Your task to perform on an android device: Search for the best coffee tables on Crate & Barrel Image 0: 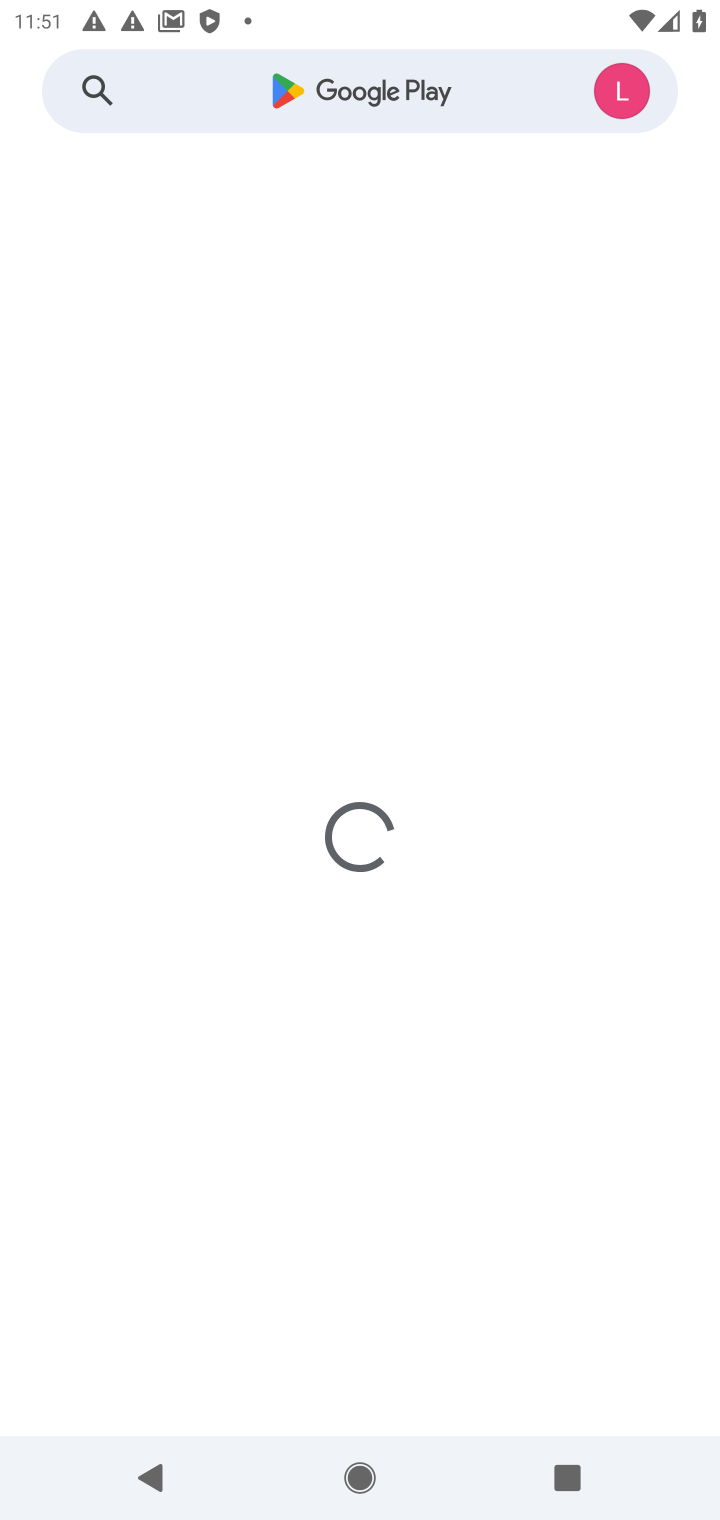
Step 0: press home button
Your task to perform on an android device: Search for the best coffee tables on Crate & Barrel Image 1: 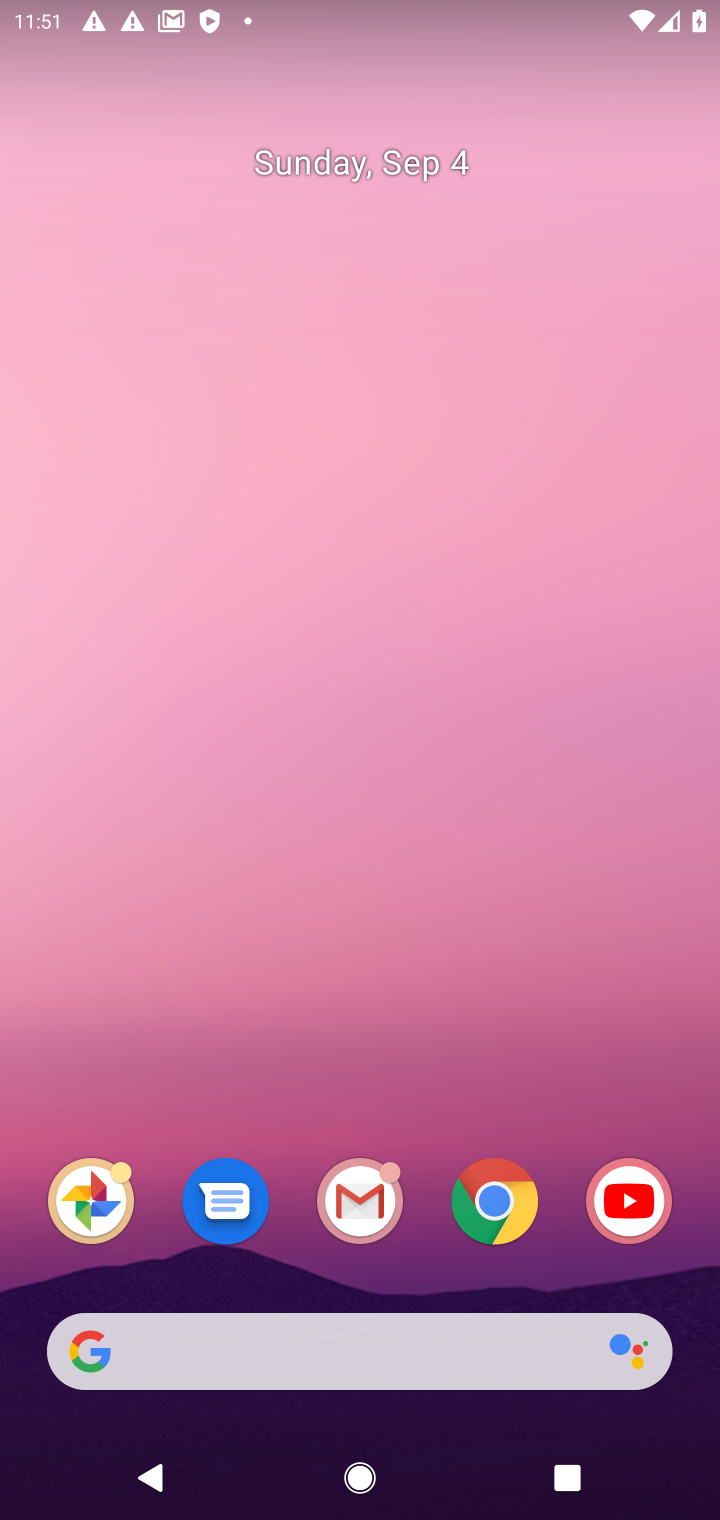
Step 1: click (477, 1197)
Your task to perform on an android device: Search for the best coffee tables on Crate & Barrel Image 2: 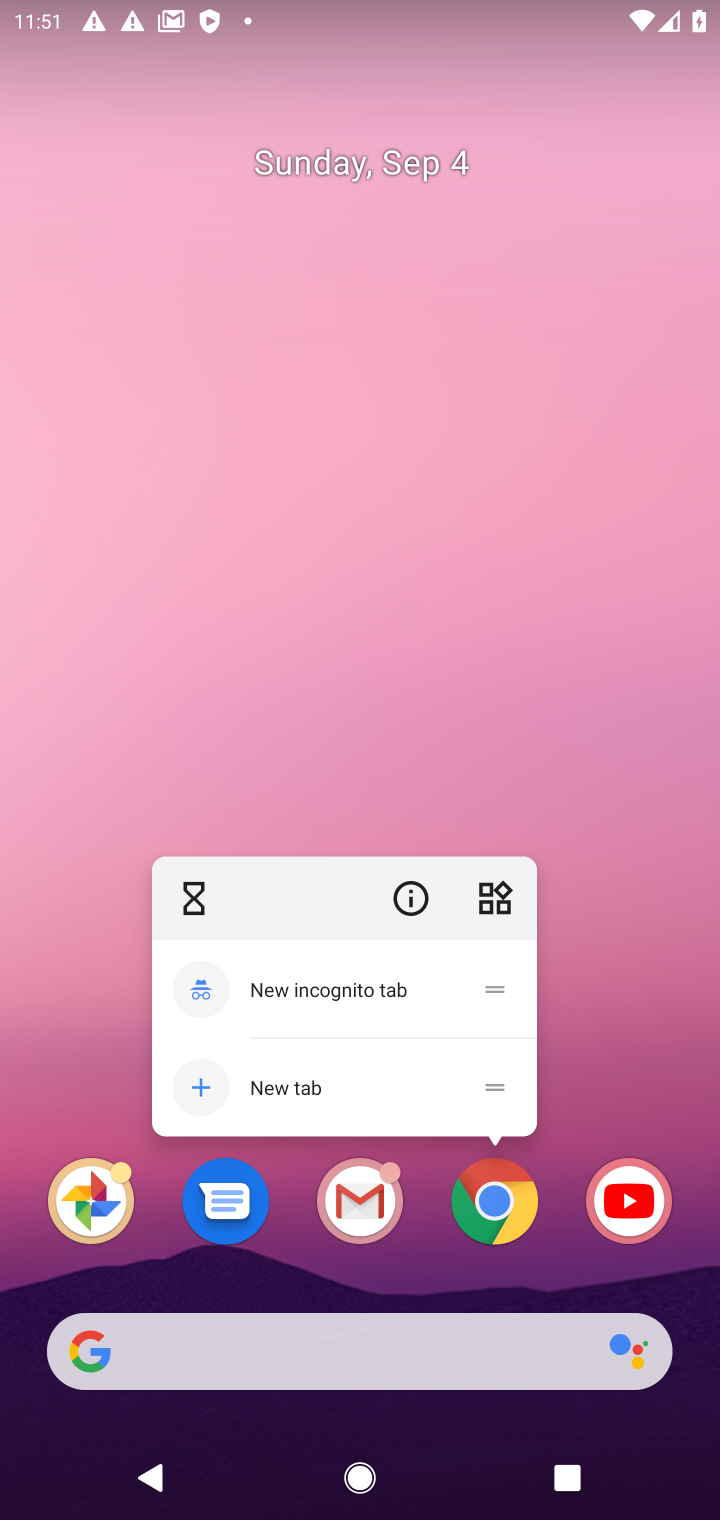
Step 2: click (508, 1181)
Your task to perform on an android device: Search for the best coffee tables on Crate & Barrel Image 3: 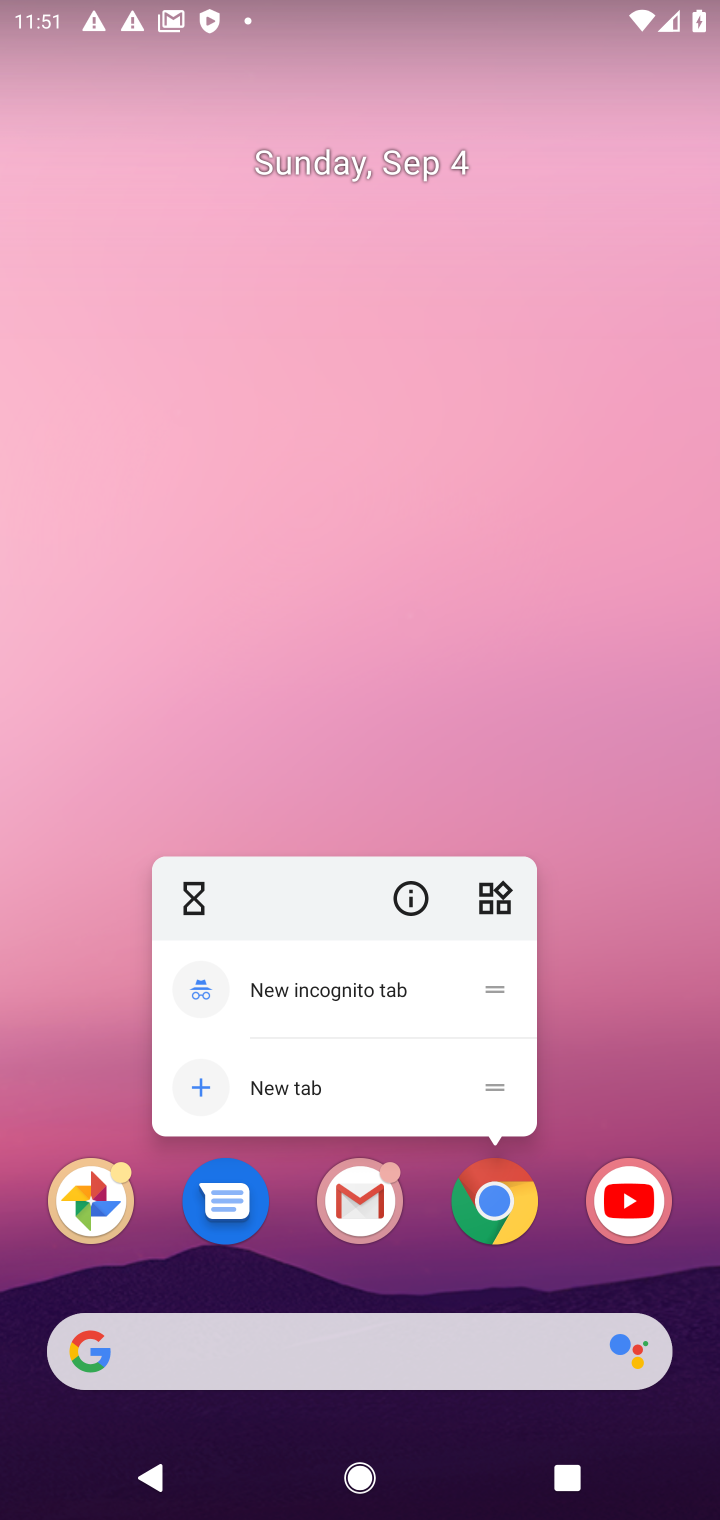
Step 3: click (505, 1175)
Your task to perform on an android device: Search for the best coffee tables on Crate & Barrel Image 4: 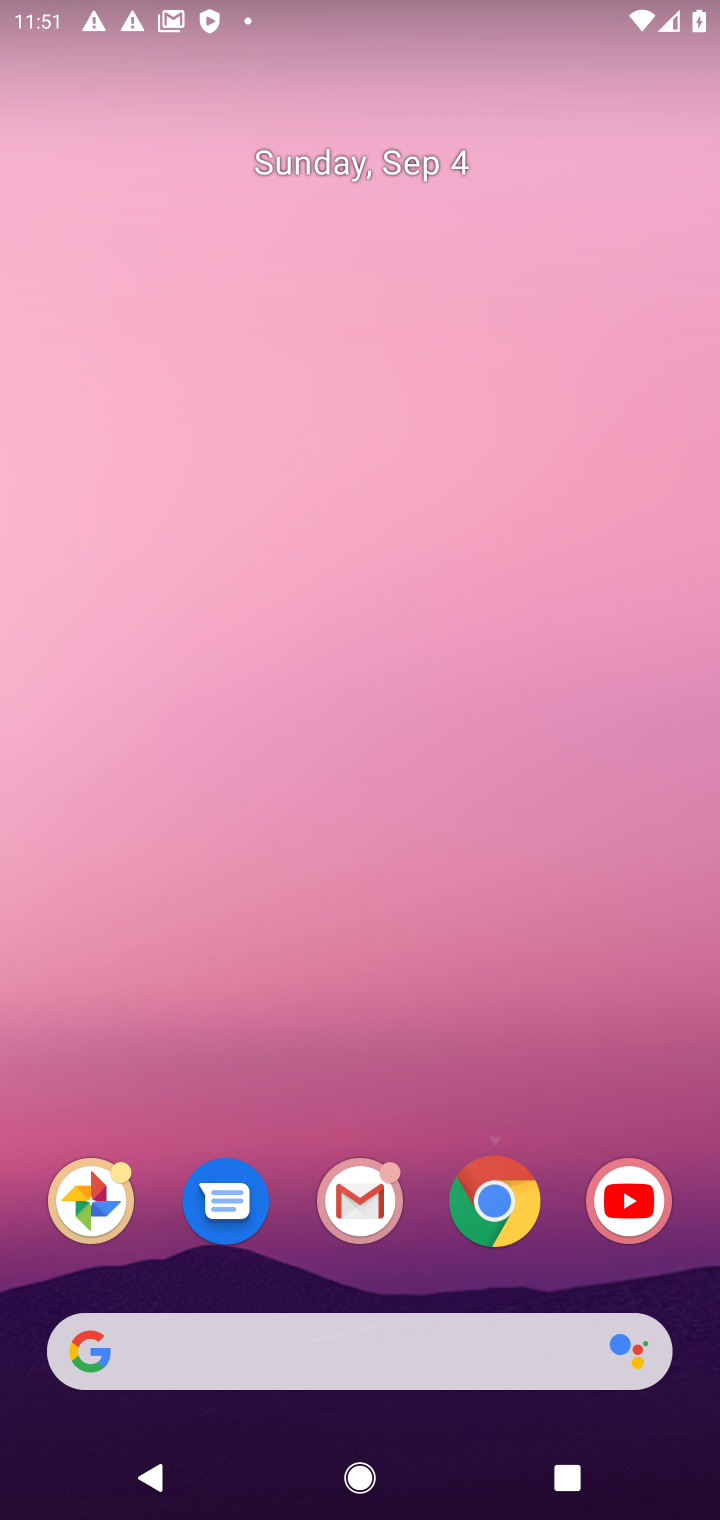
Step 4: click (512, 1212)
Your task to perform on an android device: Search for the best coffee tables on Crate & Barrel Image 5: 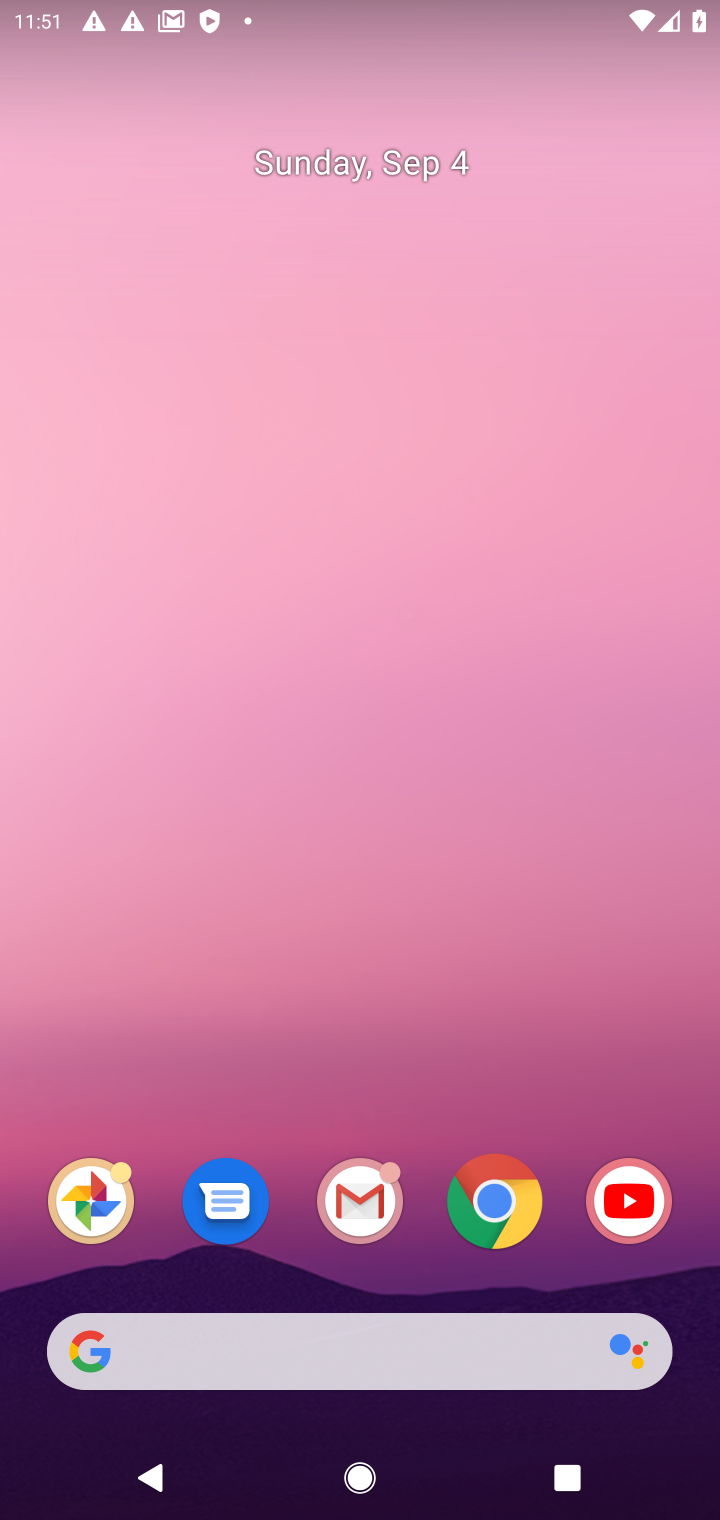
Step 5: click (516, 1210)
Your task to perform on an android device: Search for the best coffee tables on Crate & Barrel Image 6: 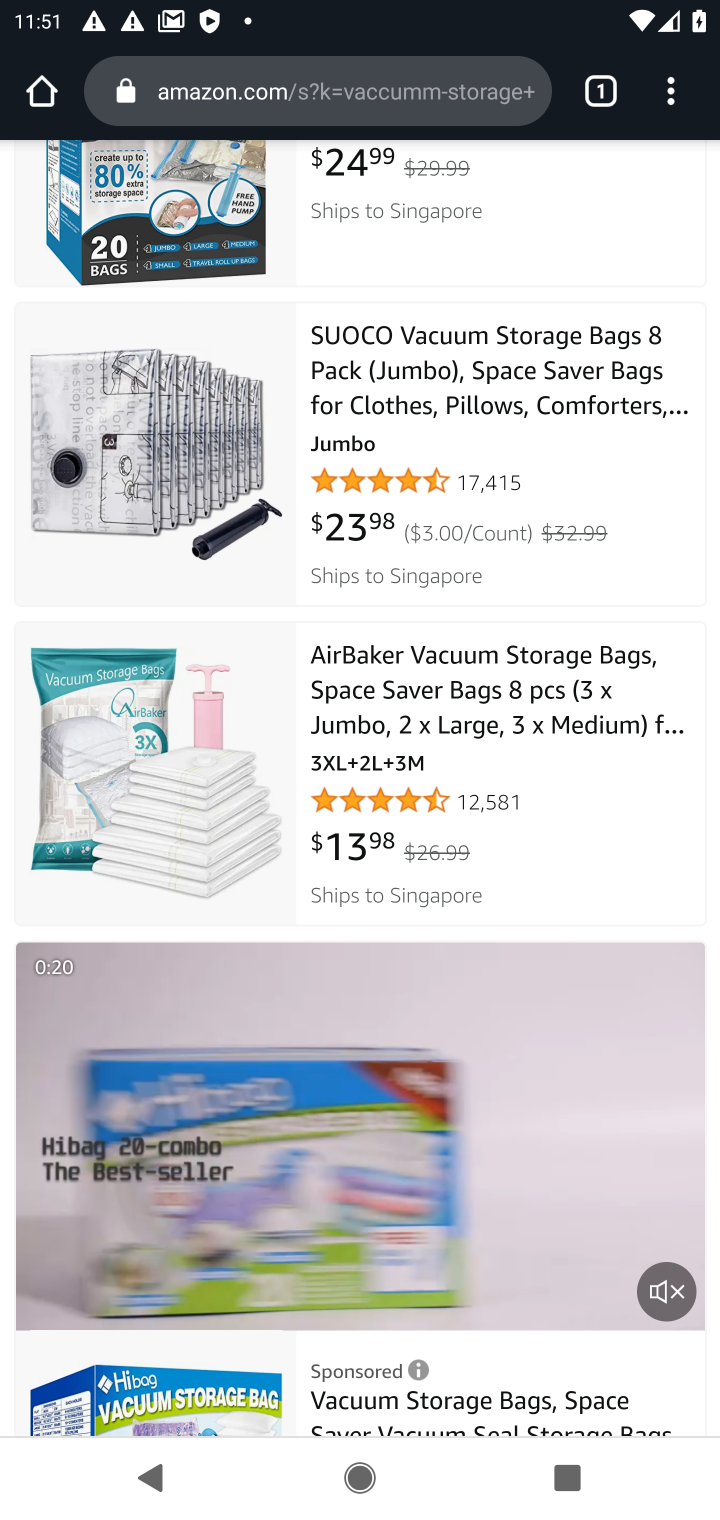
Step 6: click (332, 105)
Your task to perform on an android device: Search for the best coffee tables on Crate & Barrel Image 7: 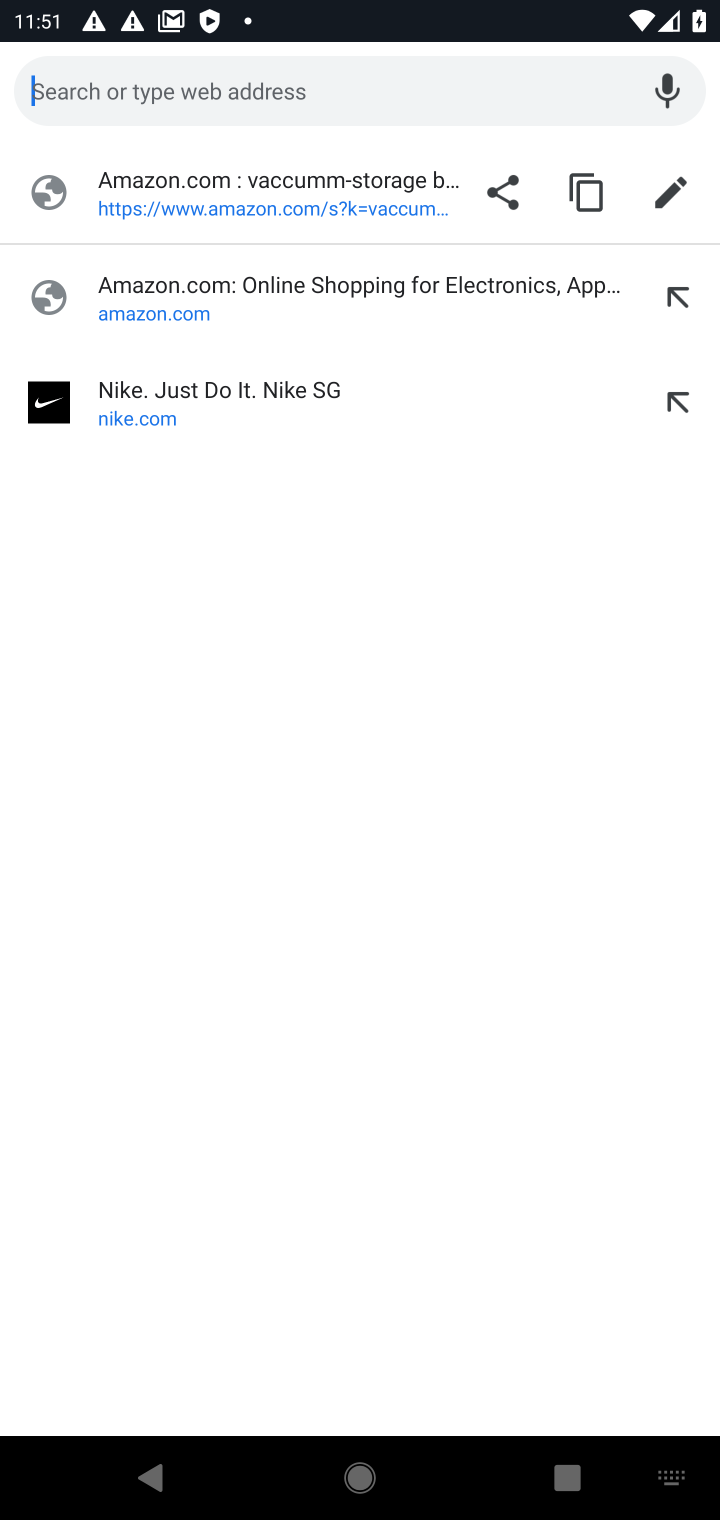
Step 7: click (364, 96)
Your task to perform on an android device: Search for the best coffee tables on Crate & Barrel Image 8: 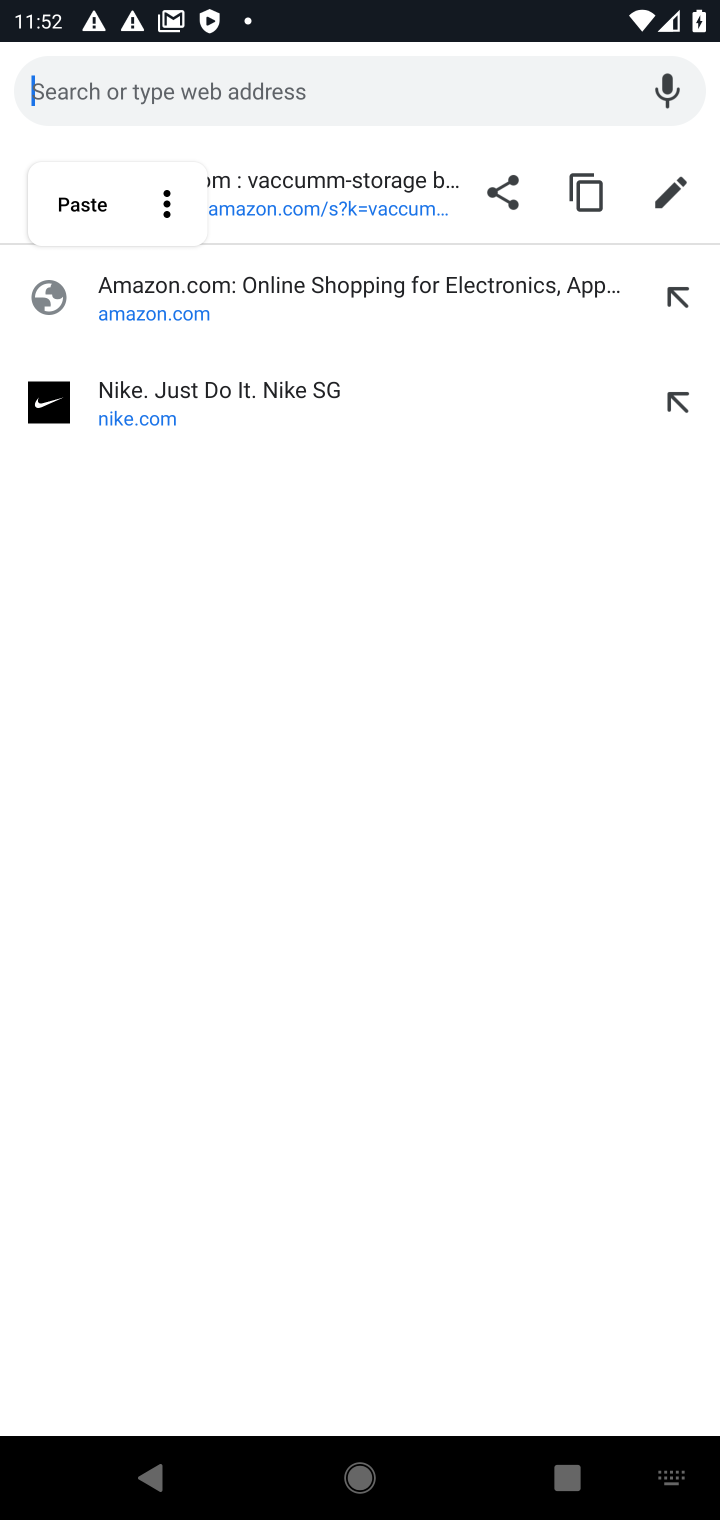
Step 8: type "crate & barrel"
Your task to perform on an android device: Search for the best coffee tables on Crate & Barrel Image 9: 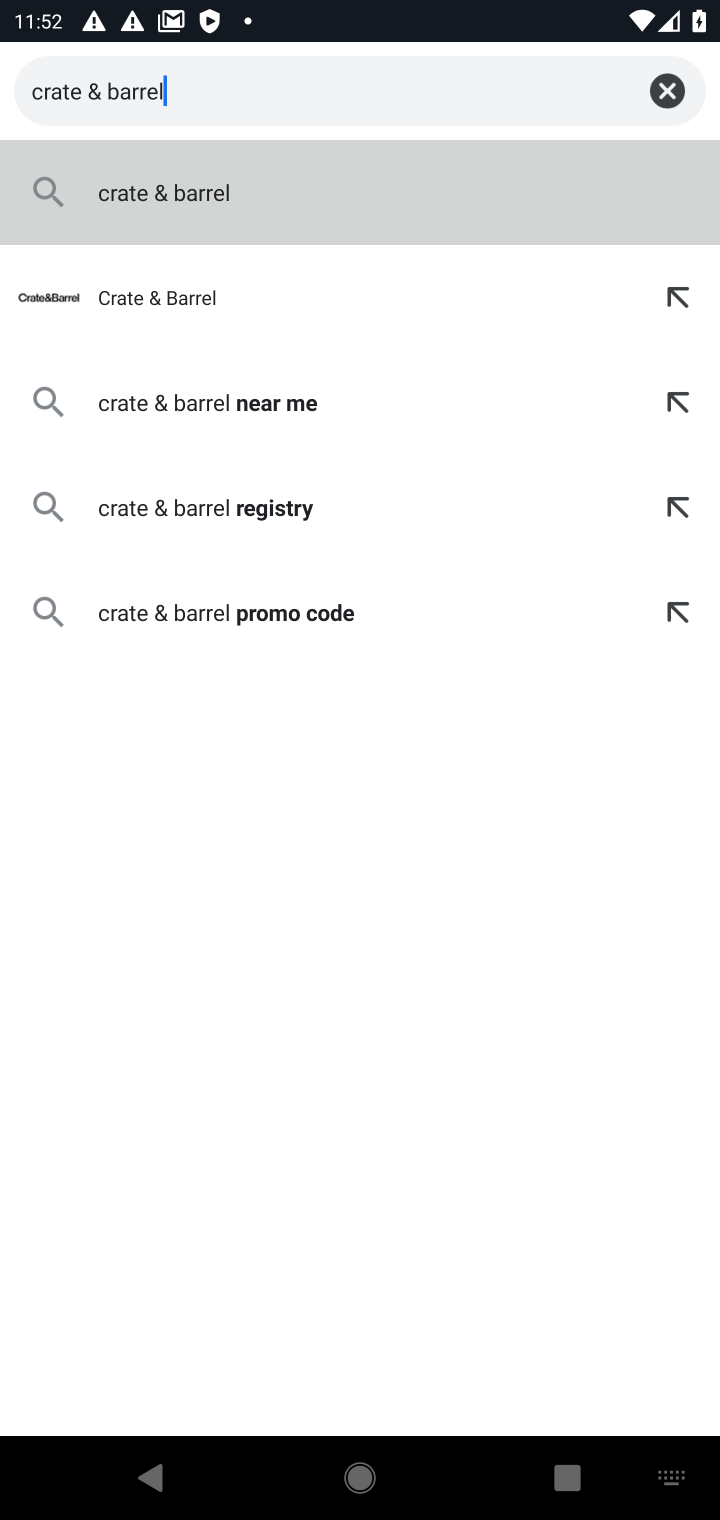
Step 9: type ""
Your task to perform on an android device: Search for the best coffee tables on Crate & Barrel Image 10: 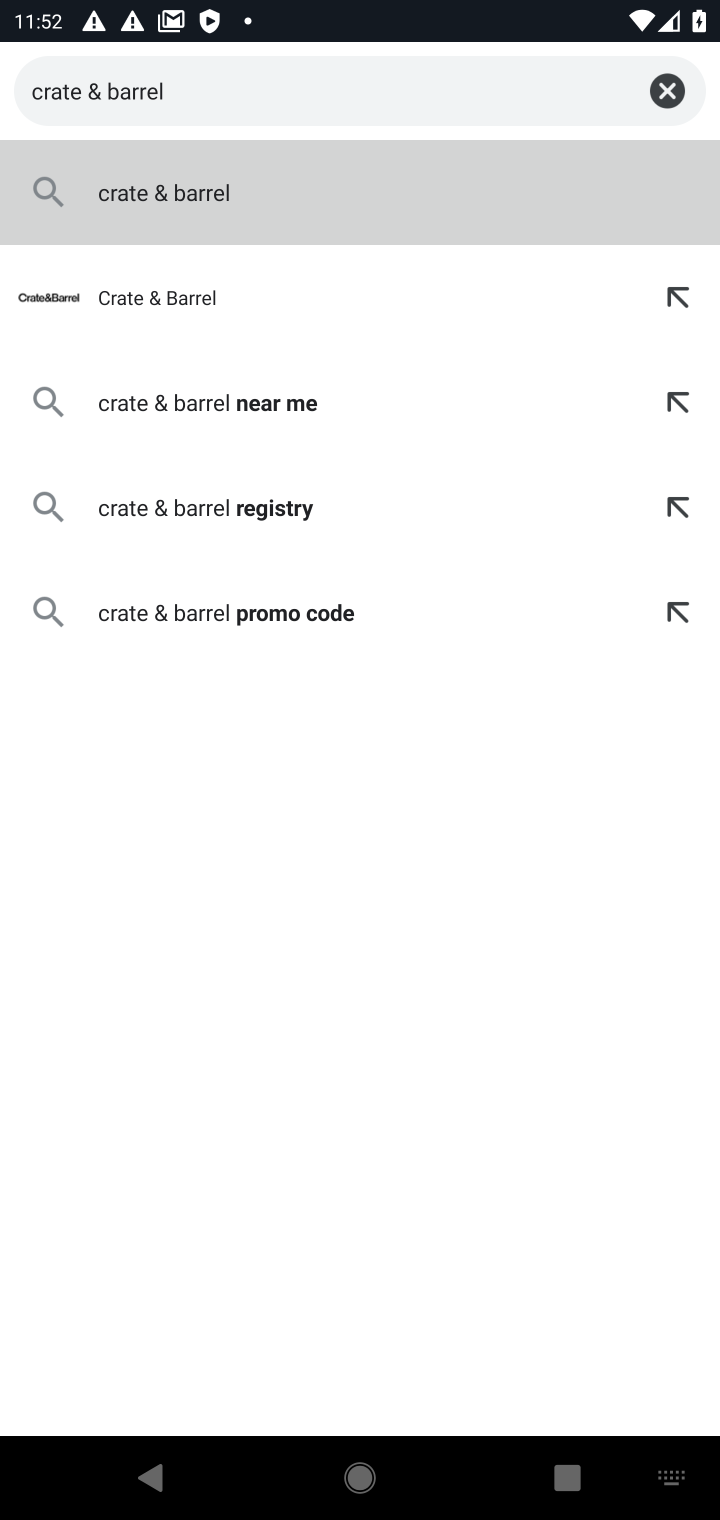
Step 10: click (138, 300)
Your task to perform on an android device: Search for the best coffee tables on Crate & Barrel Image 11: 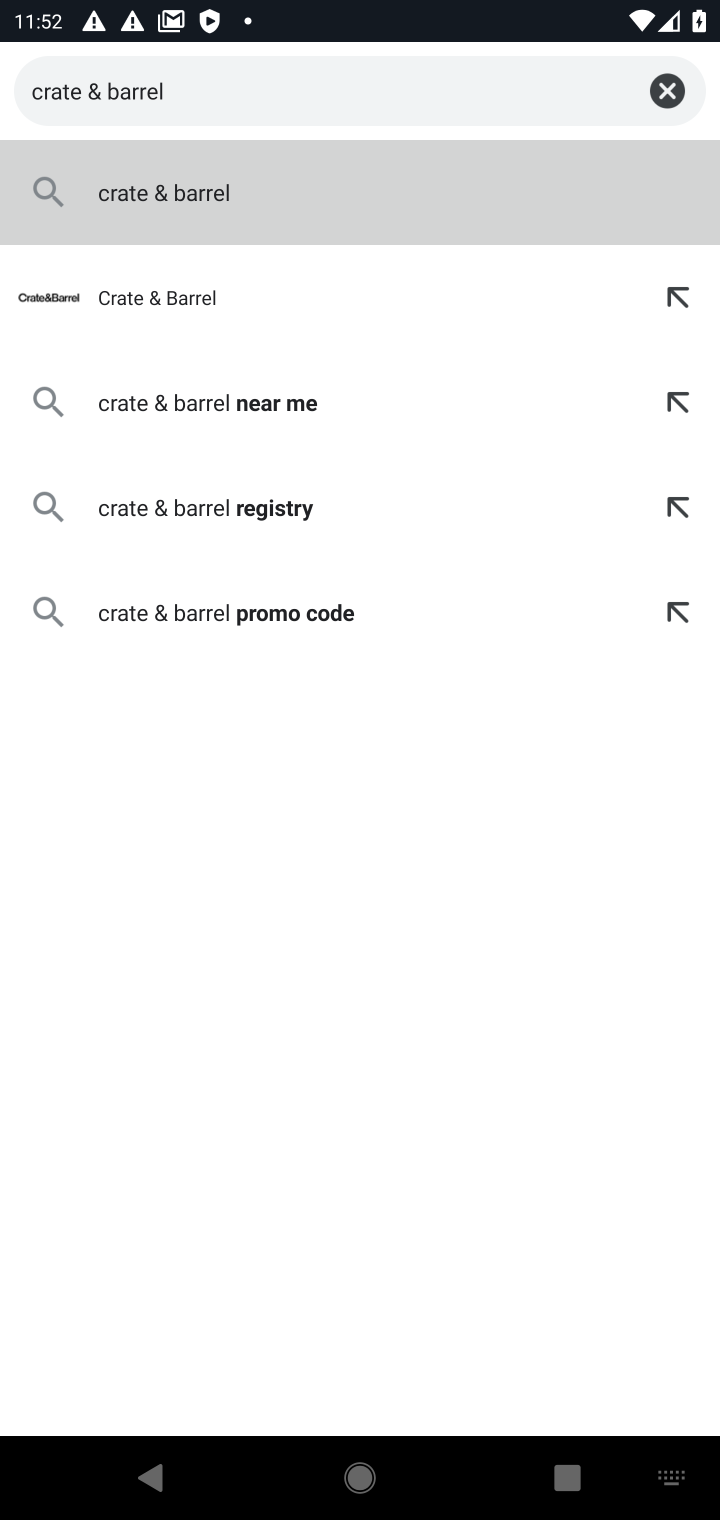
Step 11: click (192, 291)
Your task to perform on an android device: Search for the best coffee tables on Crate & Barrel Image 12: 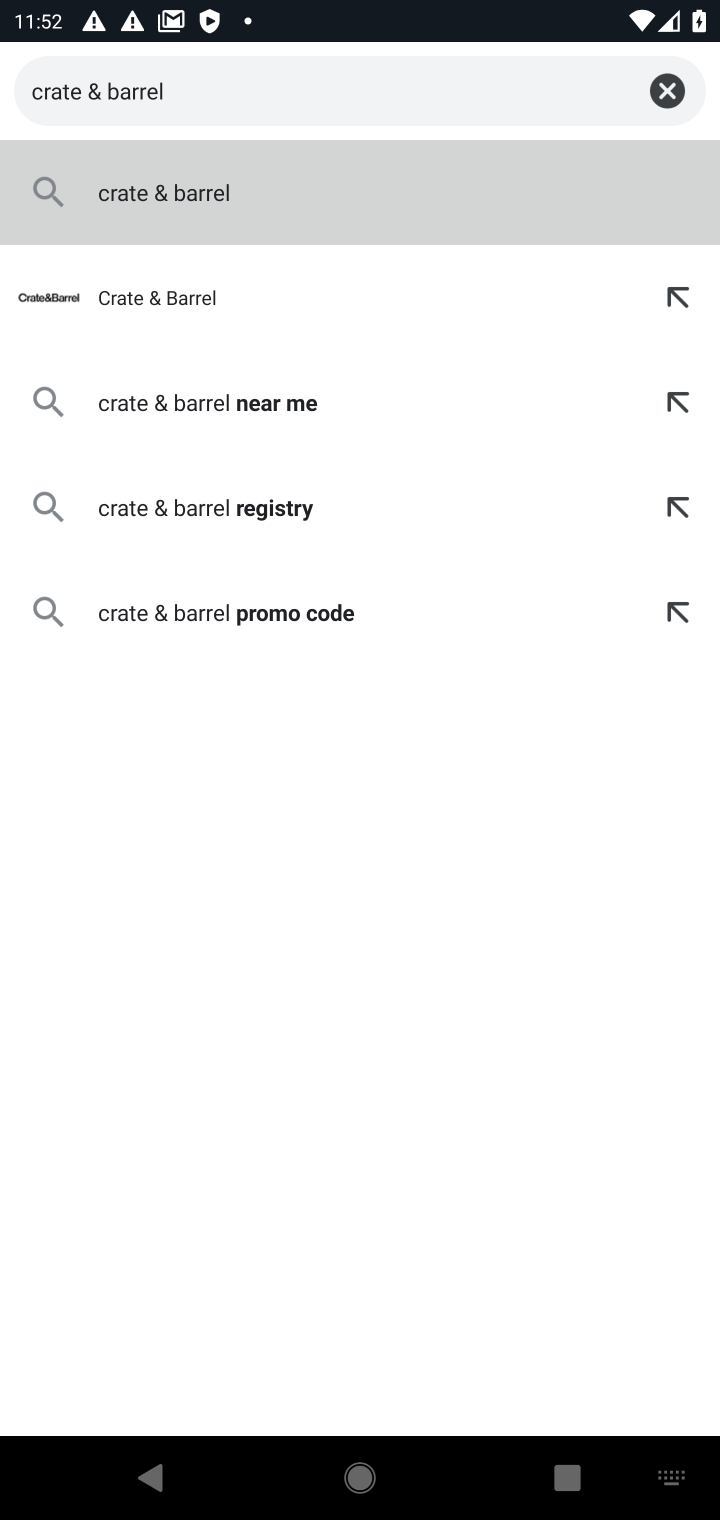
Step 12: click (167, 296)
Your task to perform on an android device: Search for the best coffee tables on Crate & Barrel Image 13: 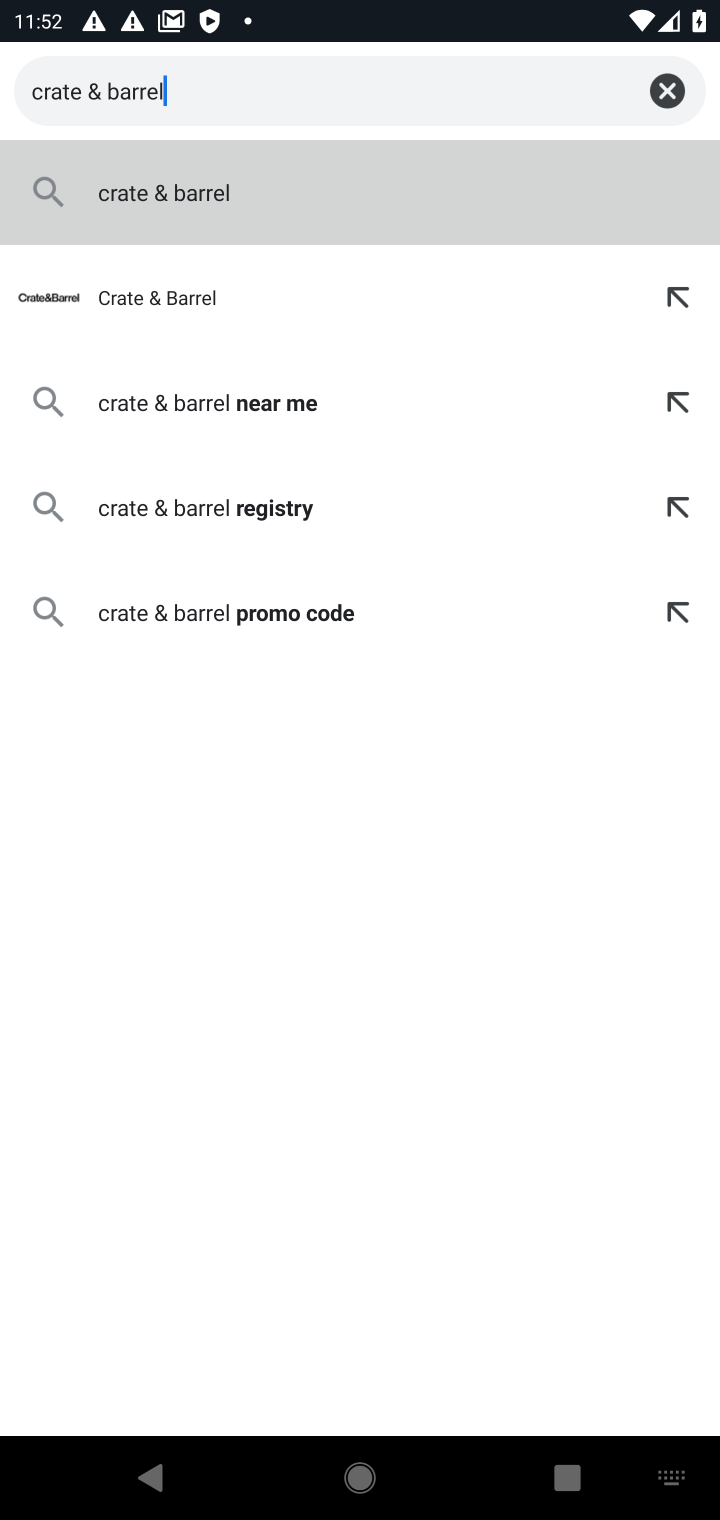
Step 13: press enter
Your task to perform on an android device: Search for the best coffee tables on Crate & Barrel Image 14: 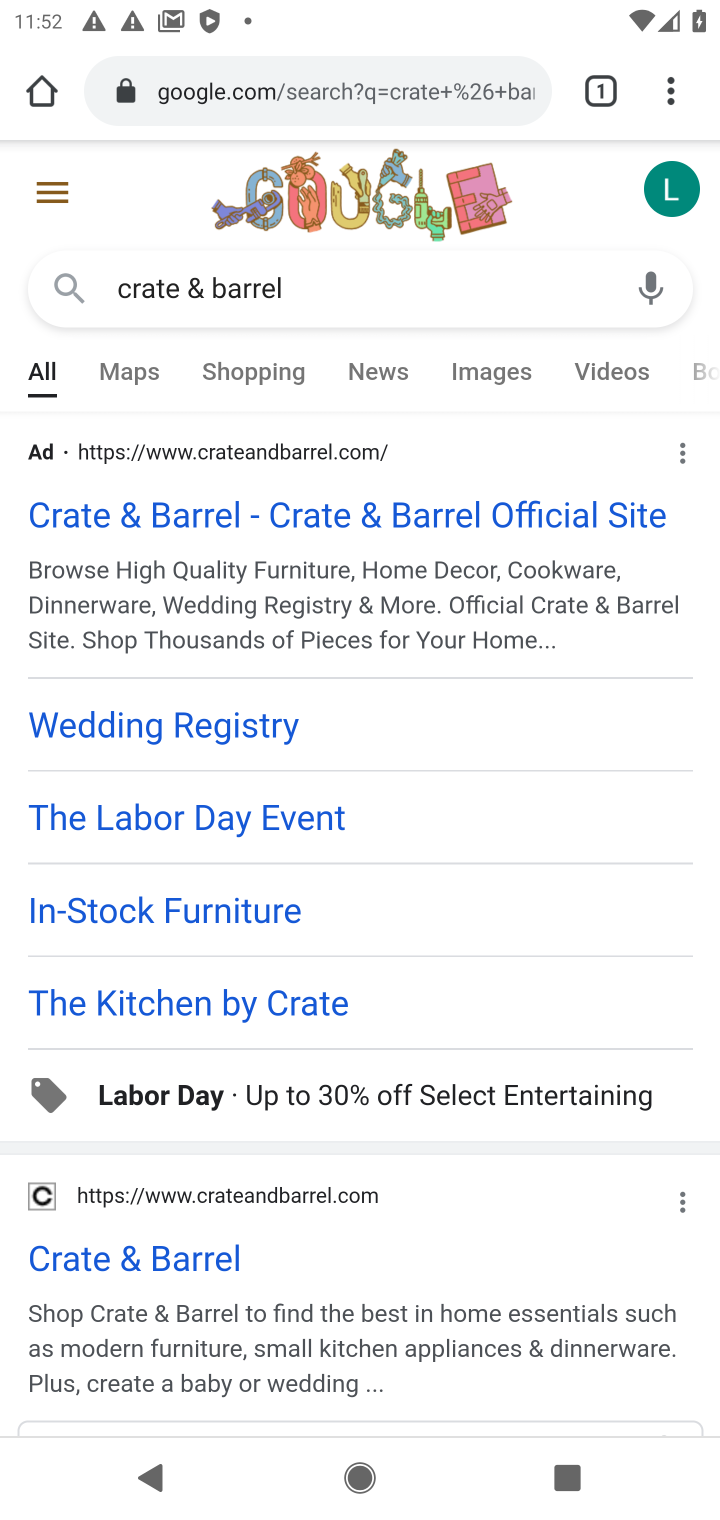
Step 14: click (65, 1261)
Your task to perform on an android device: Search for the best coffee tables on Crate & Barrel Image 15: 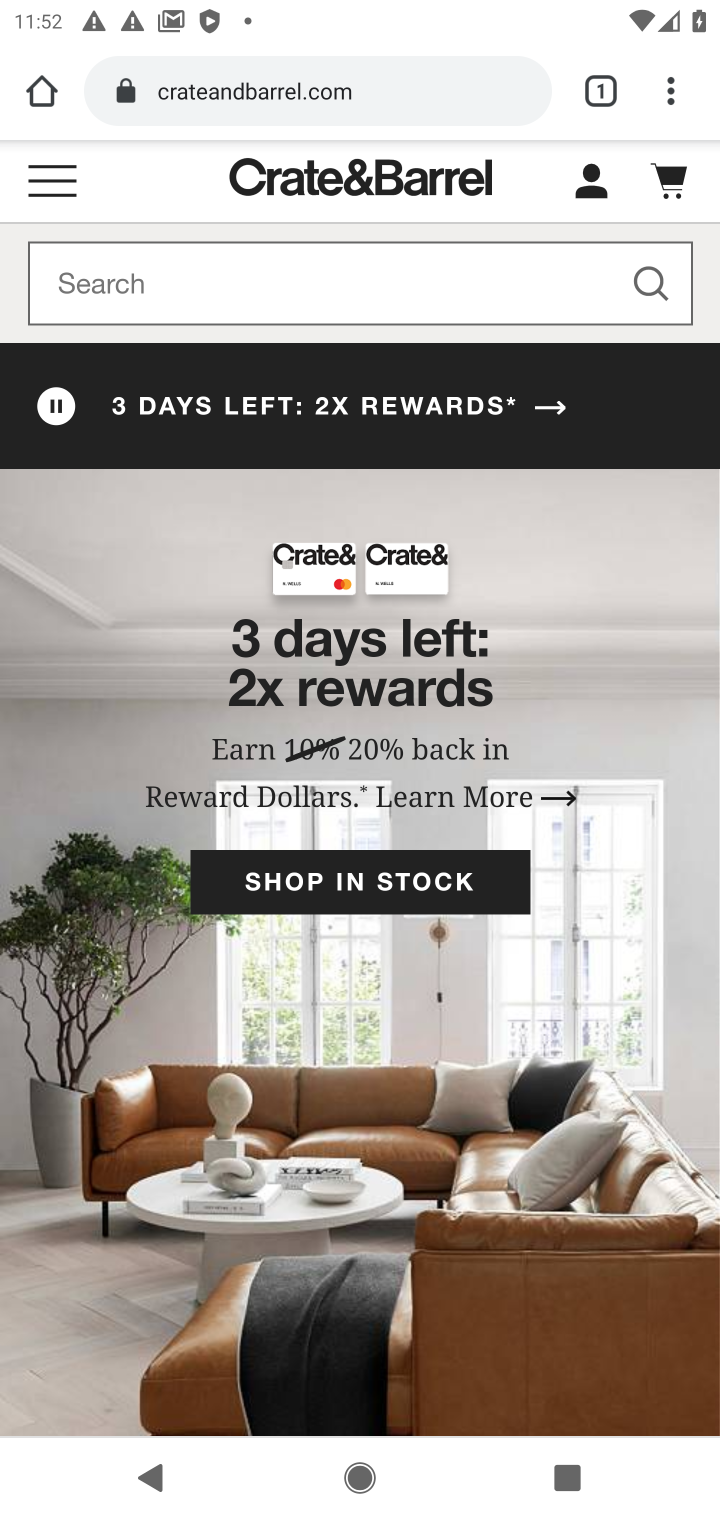
Step 15: click (143, 286)
Your task to perform on an android device: Search for the best coffee tables on Crate & Barrel Image 16: 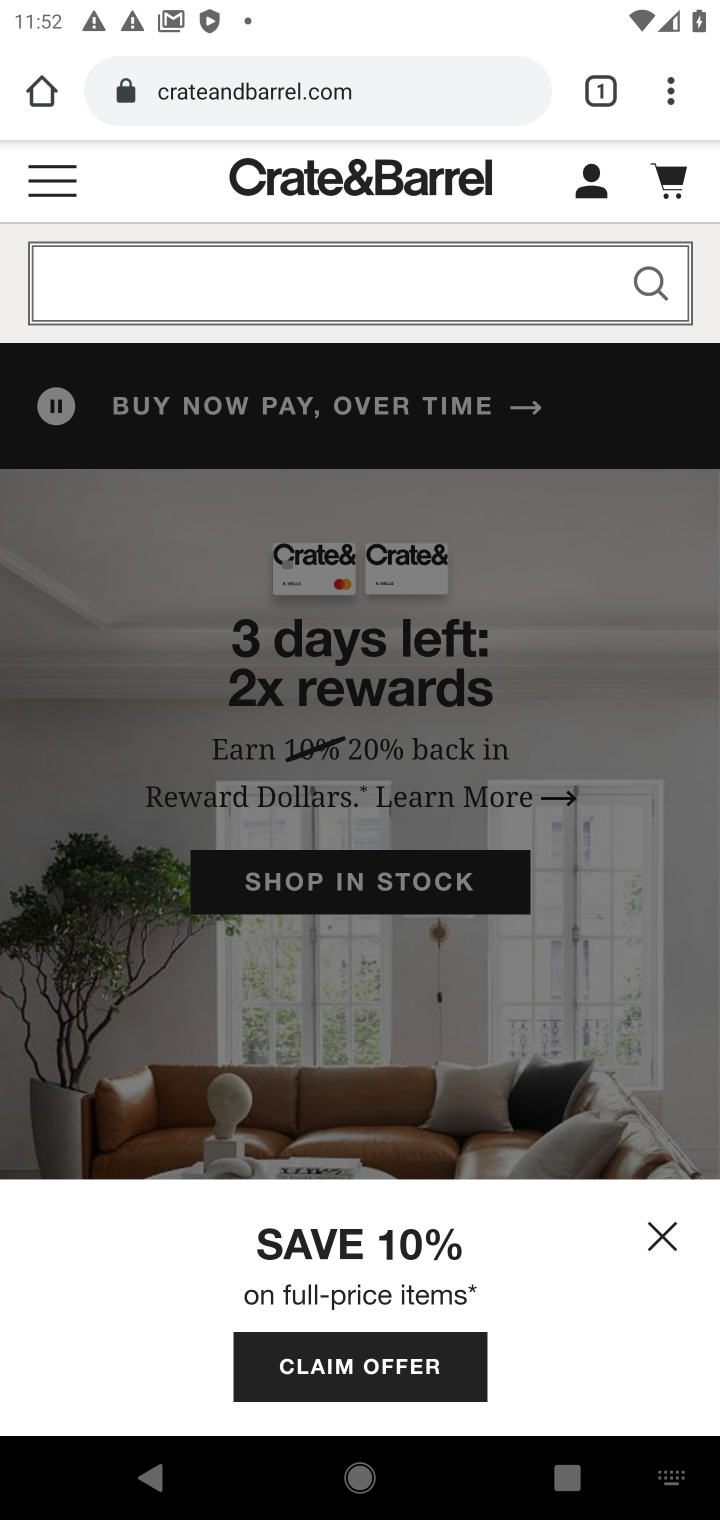
Step 16: type "coffee tables"
Your task to perform on an android device: Search for the best coffee tables on Crate & Barrel Image 17: 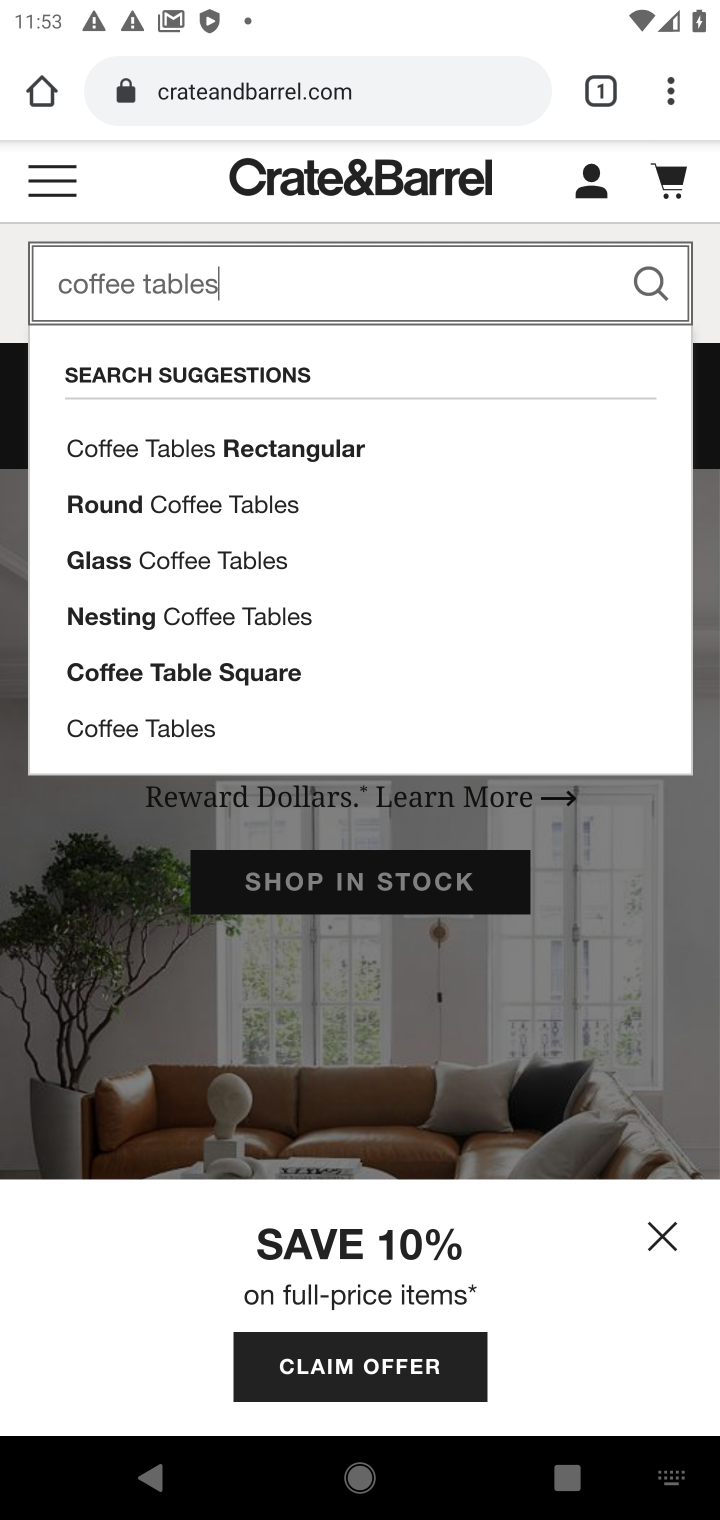
Step 17: click (196, 440)
Your task to perform on an android device: Search for the best coffee tables on Crate & Barrel Image 18: 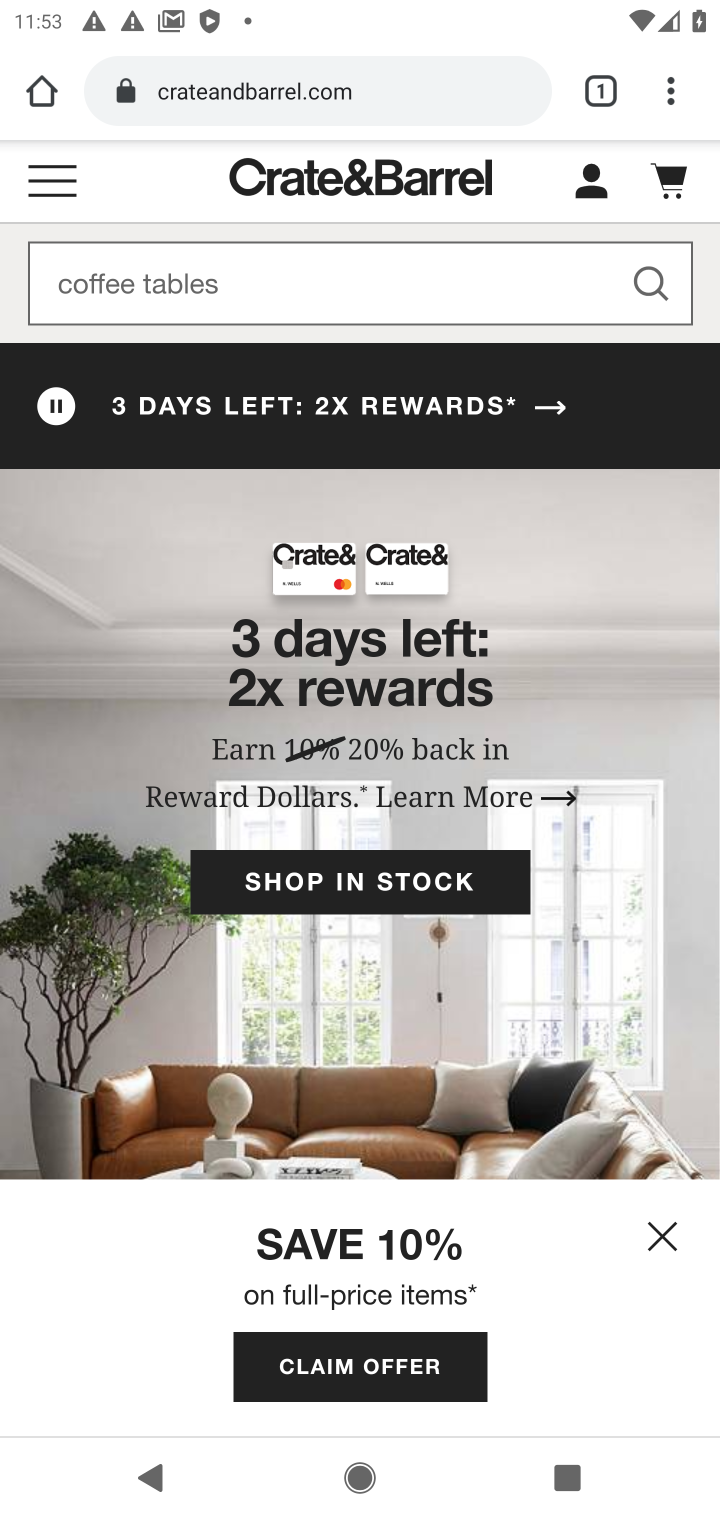
Step 18: click (652, 1224)
Your task to perform on an android device: Search for the best coffee tables on Crate & Barrel Image 19: 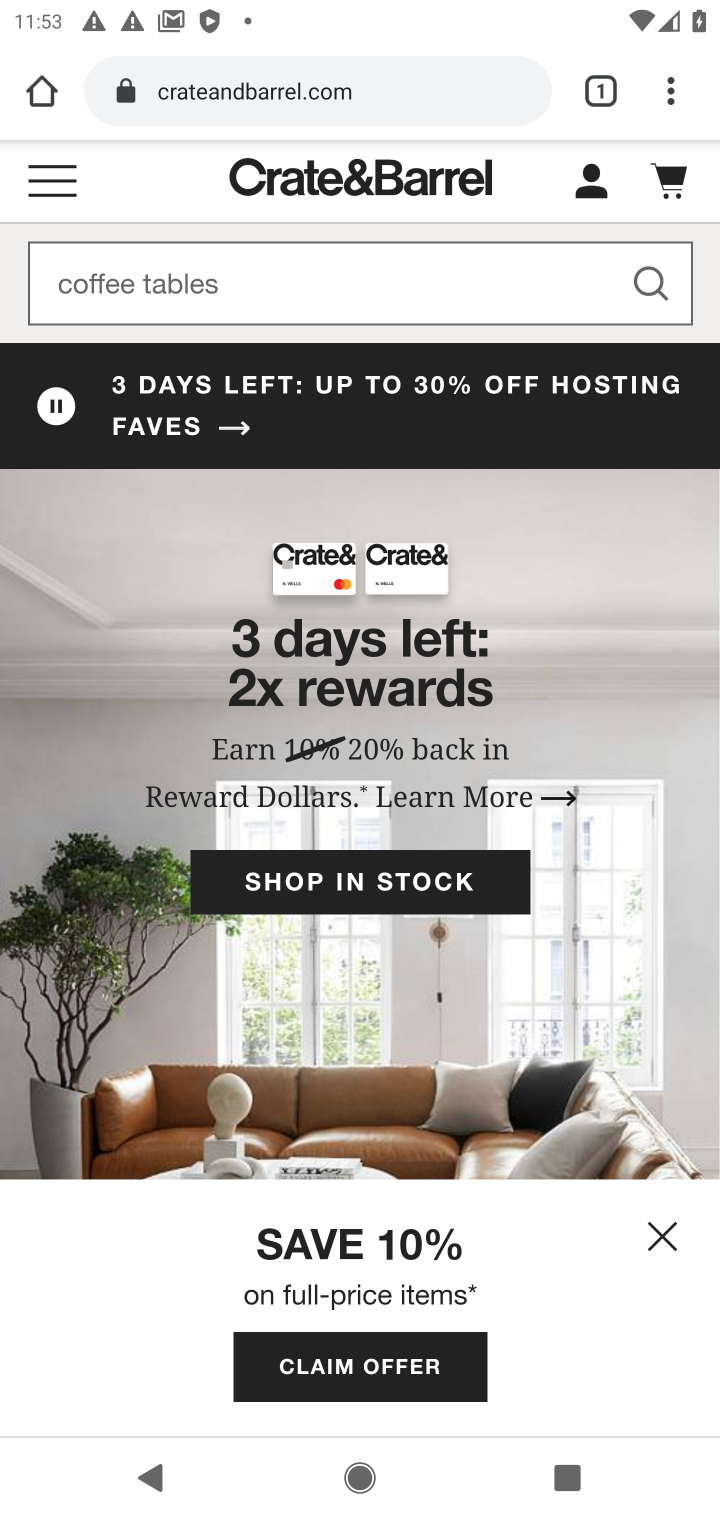
Step 19: click (667, 1236)
Your task to perform on an android device: Search for the best coffee tables on Crate & Barrel Image 20: 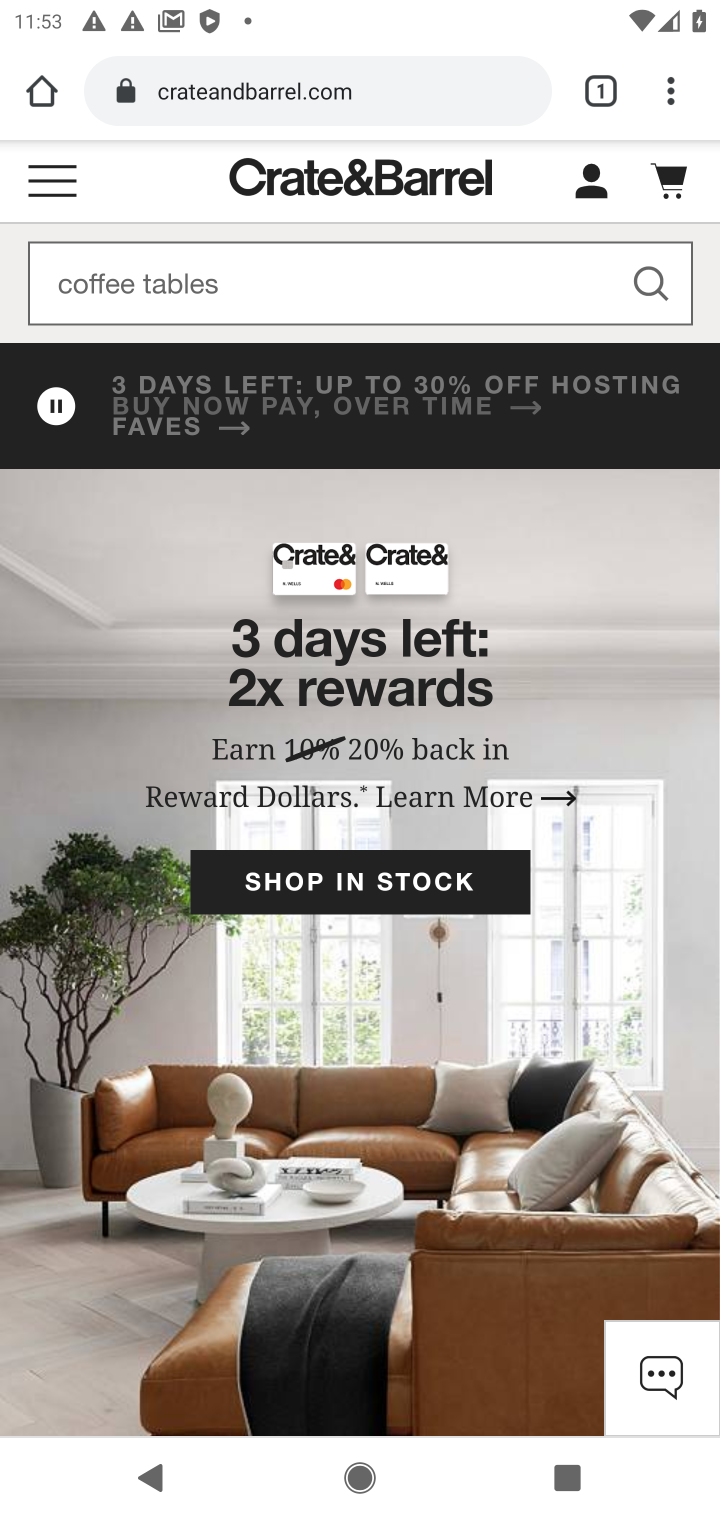
Step 20: drag from (352, 681) to (388, 514)
Your task to perform on an android device: Search for the best coffee tables on Crate & Barrel Image 21: 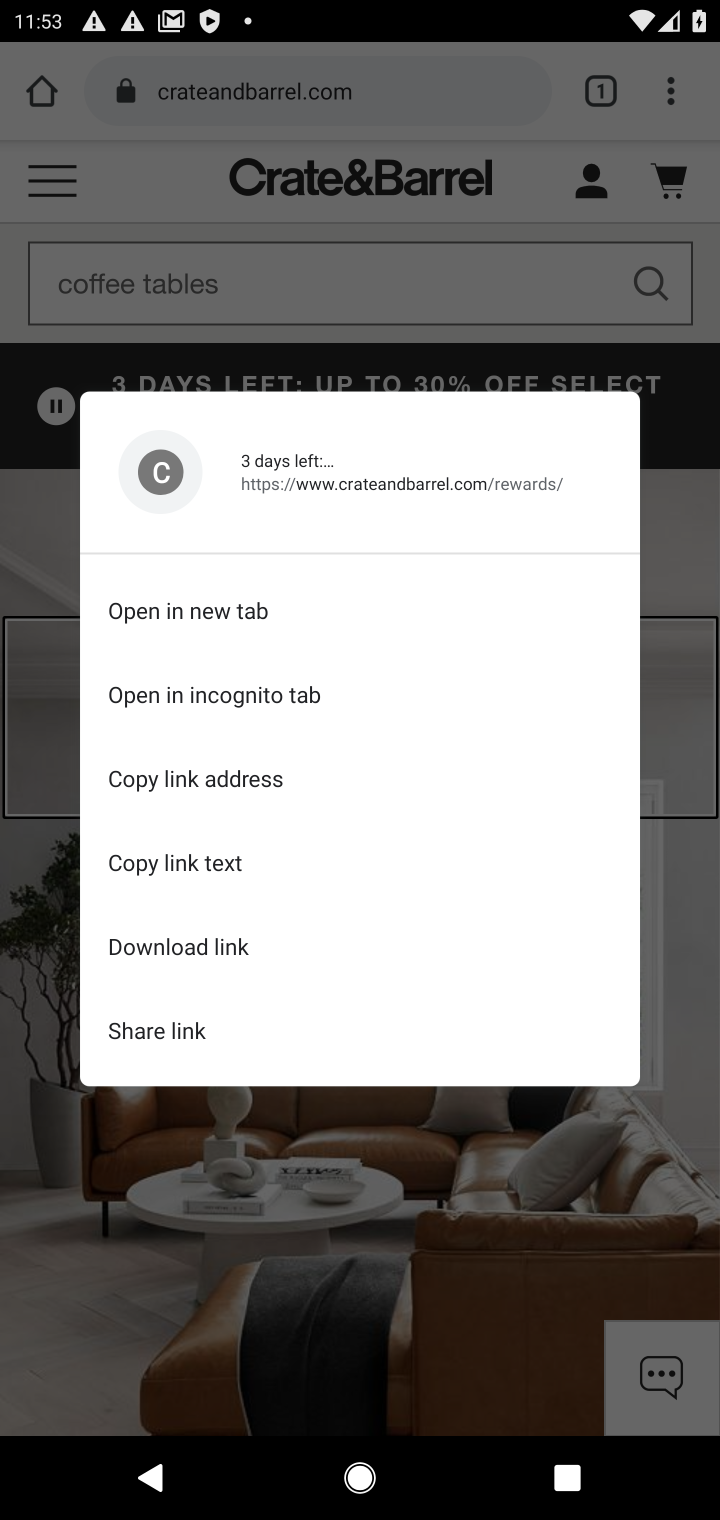
Step 21: click (228, 1252)
Your task to perform on an android device: Search for the best coffee tables on Crate & Barrel Image 22: 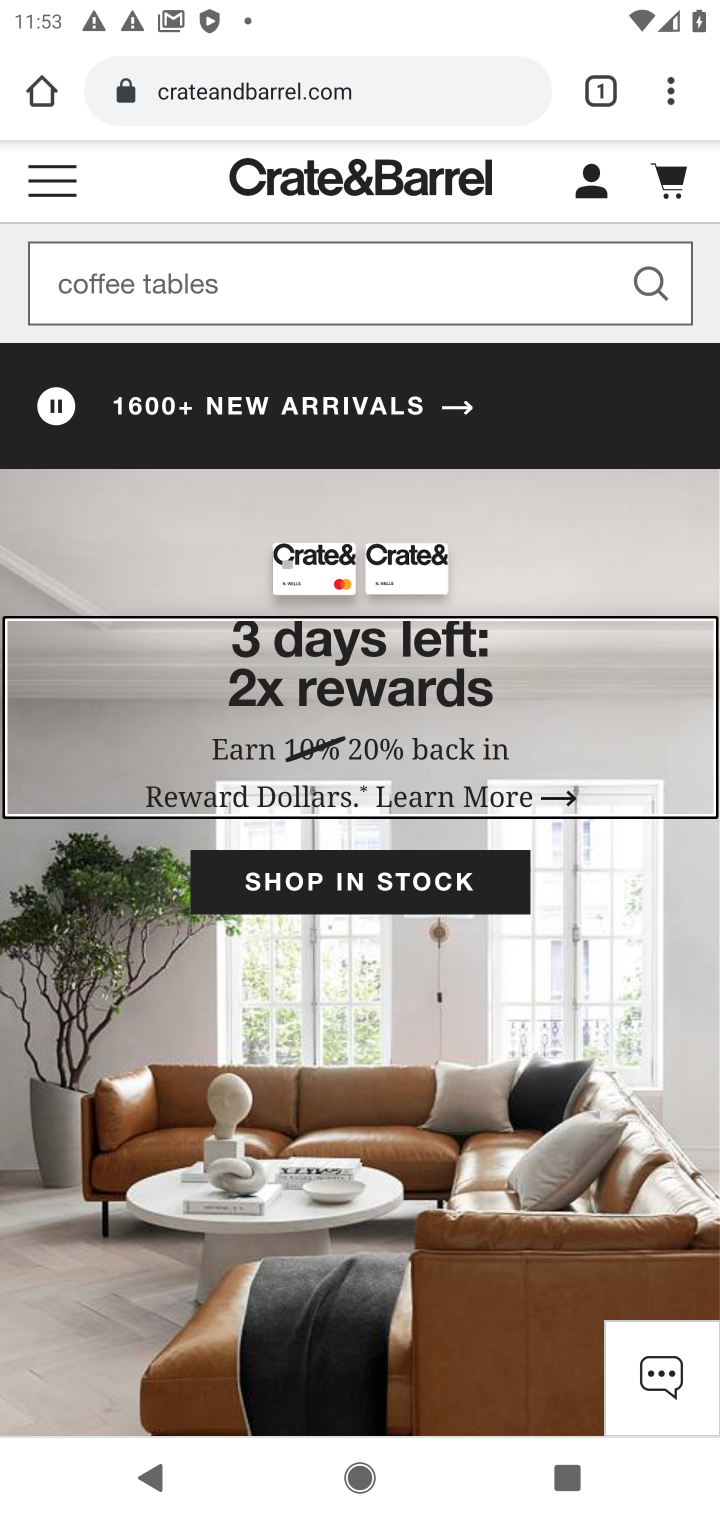
Step 22: click (640, 277)
Your task to perform on an android device: Search for the best coffee tables on Crate & Barrel Image 23: 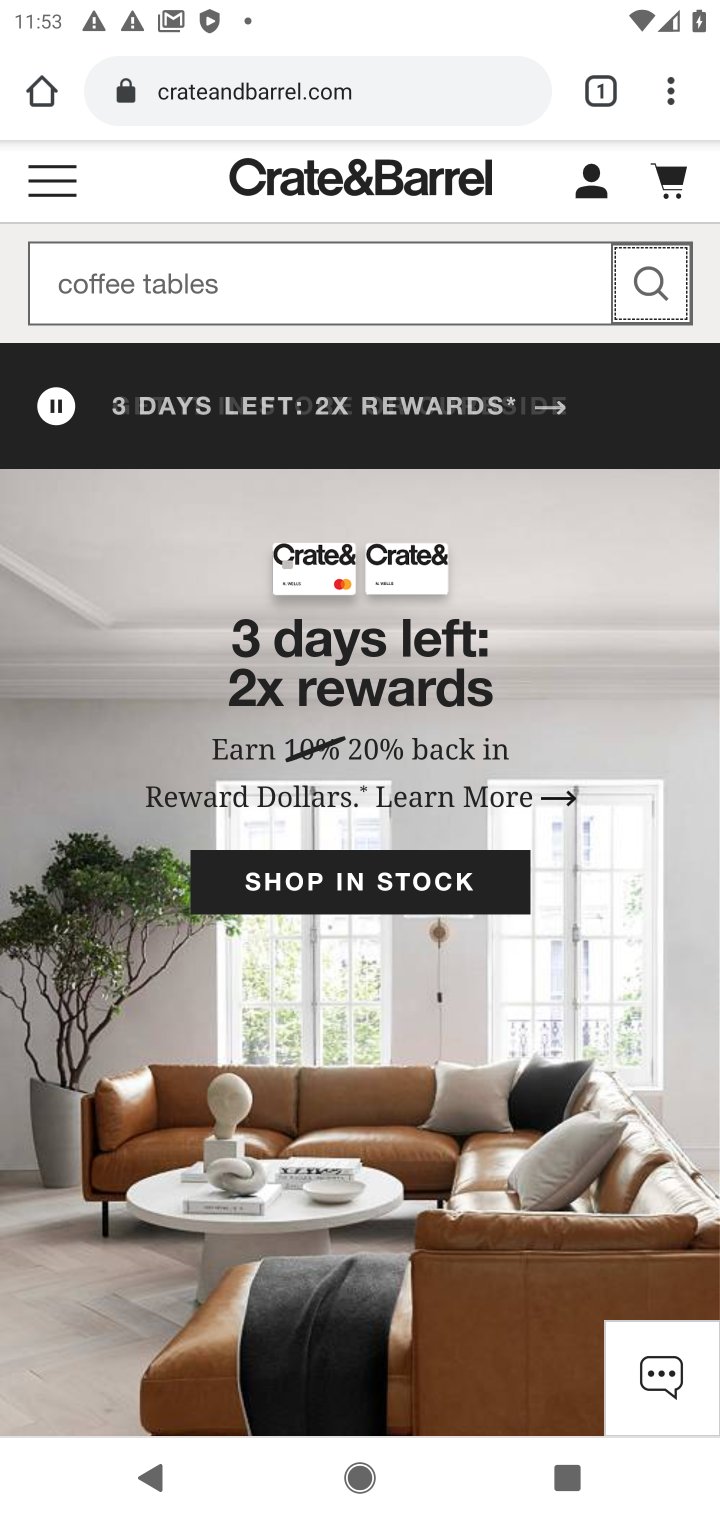
Step 23: drag from (377, 1014) to (468, 472)
Your task to perform on an android device: Search for the best coffee tables on Crate & Barrel Image 24: 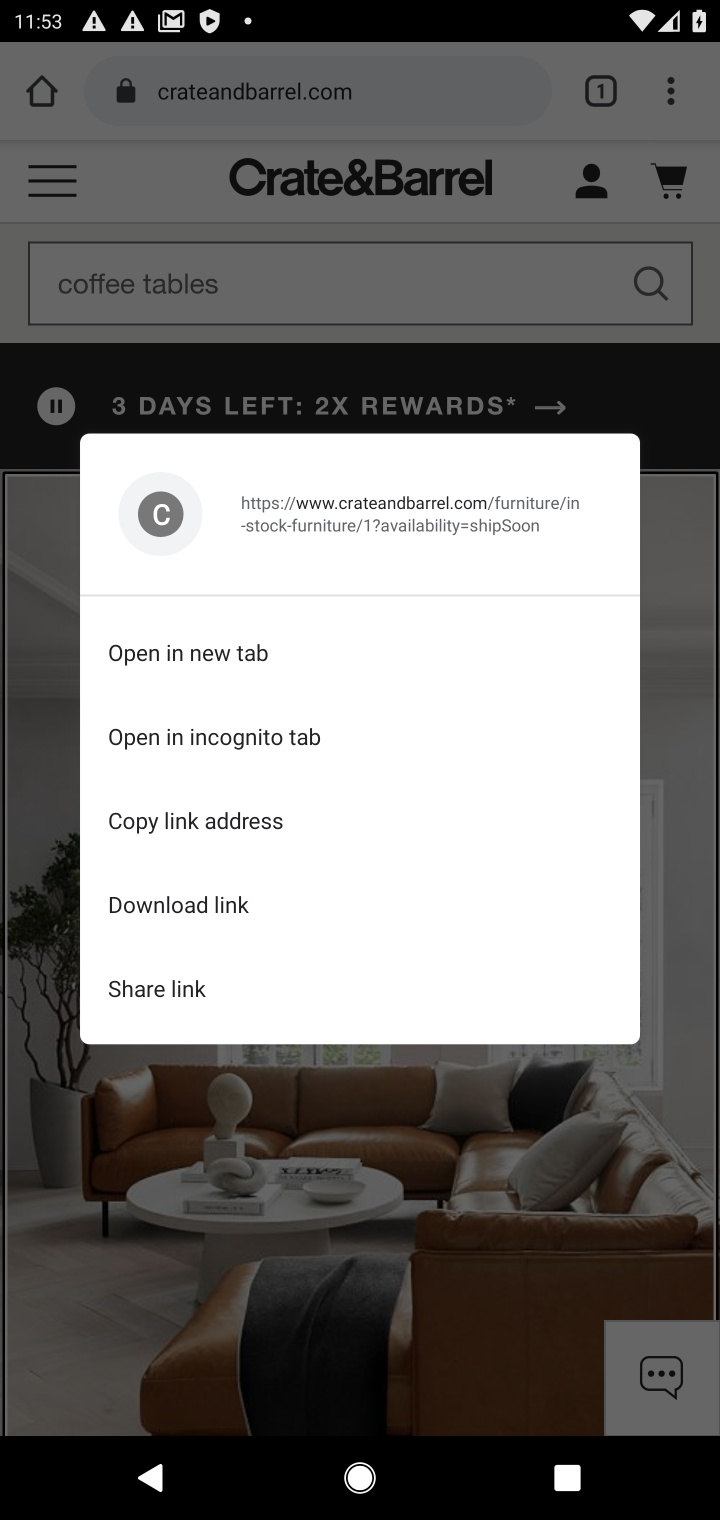
Step 24: drag from (248, 1127) to (399, 631)
Your task to perform on an android device: Search for the best coffee tables on Crate & Barrel Image 25: 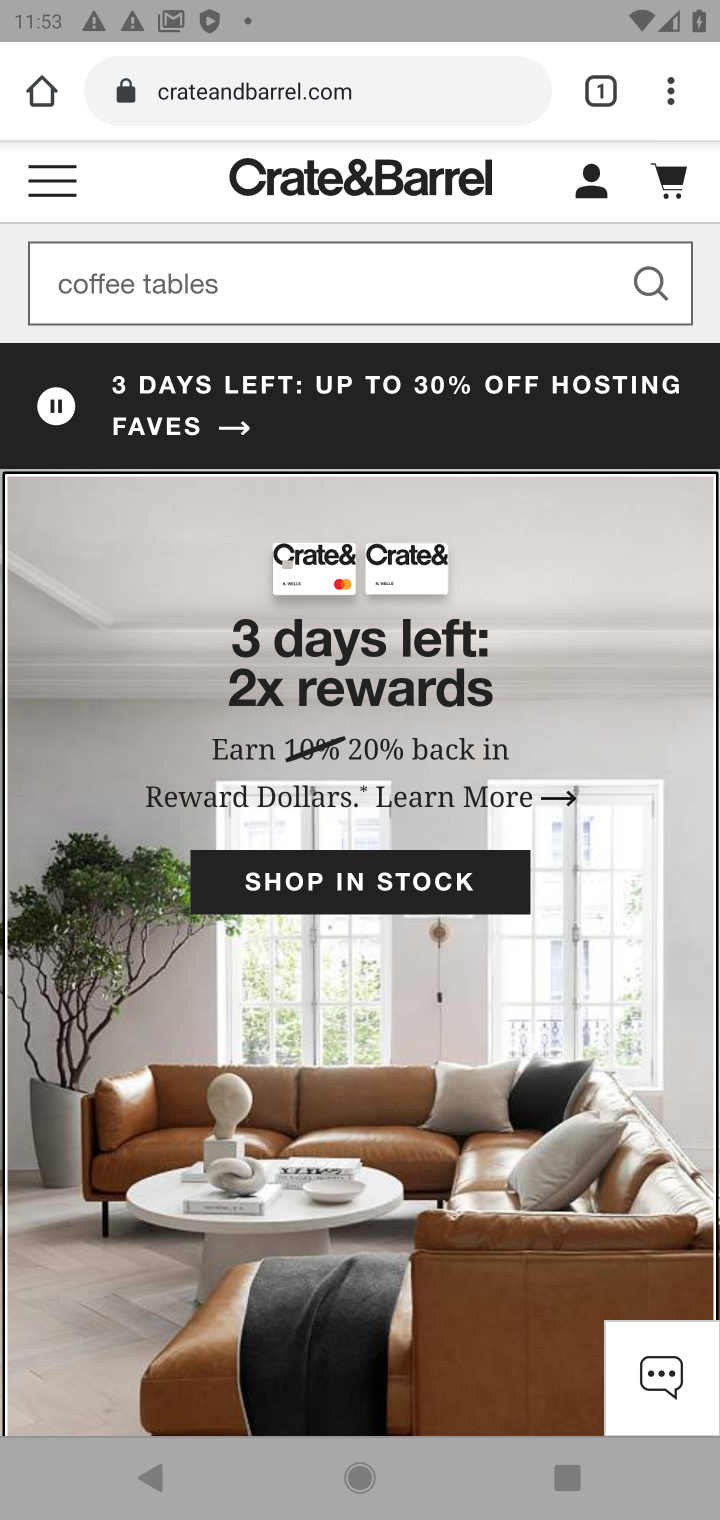
Step 25: drag from (617, 1121) to (718, 488)
Your task to perform on an android device: Search for the best coffee tables on Crate & Barrel Image 26: 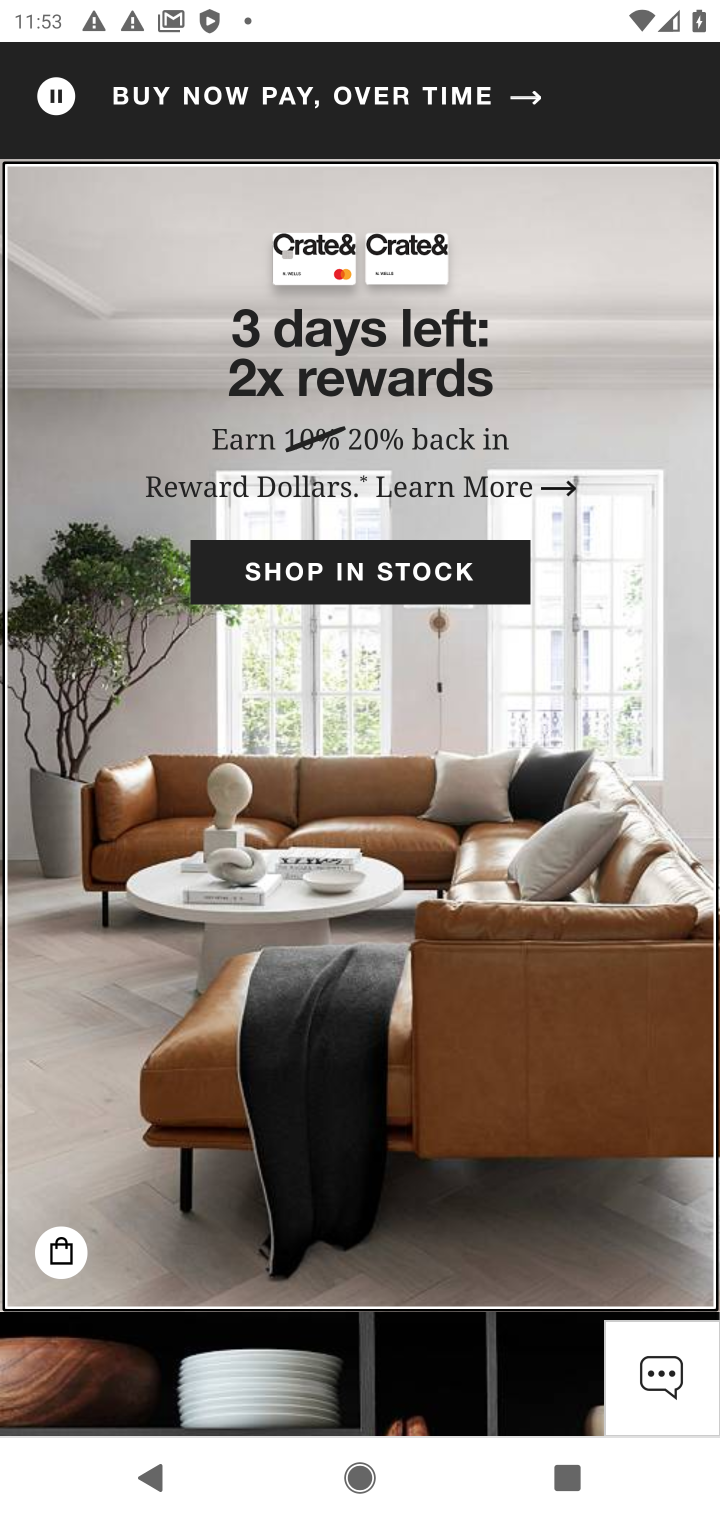
Step 26: drag from (392, 647) to (310, 318)
Your task to perform on an android device: Search for the best coffee tables on Crate & Barrel Image 27: 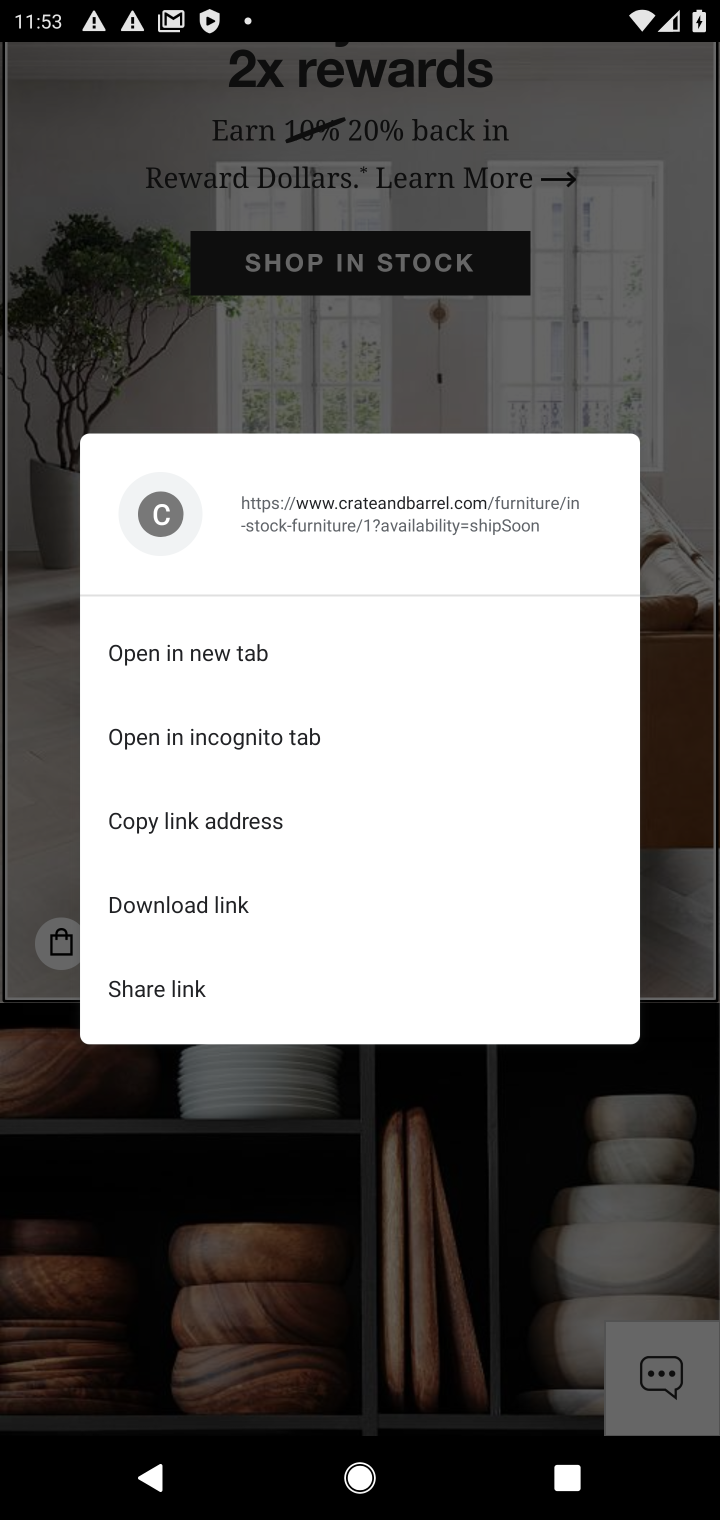
Step 27: drag from (671, 657) to (671, 413)
Your task to perform on an android device: Search for the best coffee tables on Crate & Barrel Image 28: 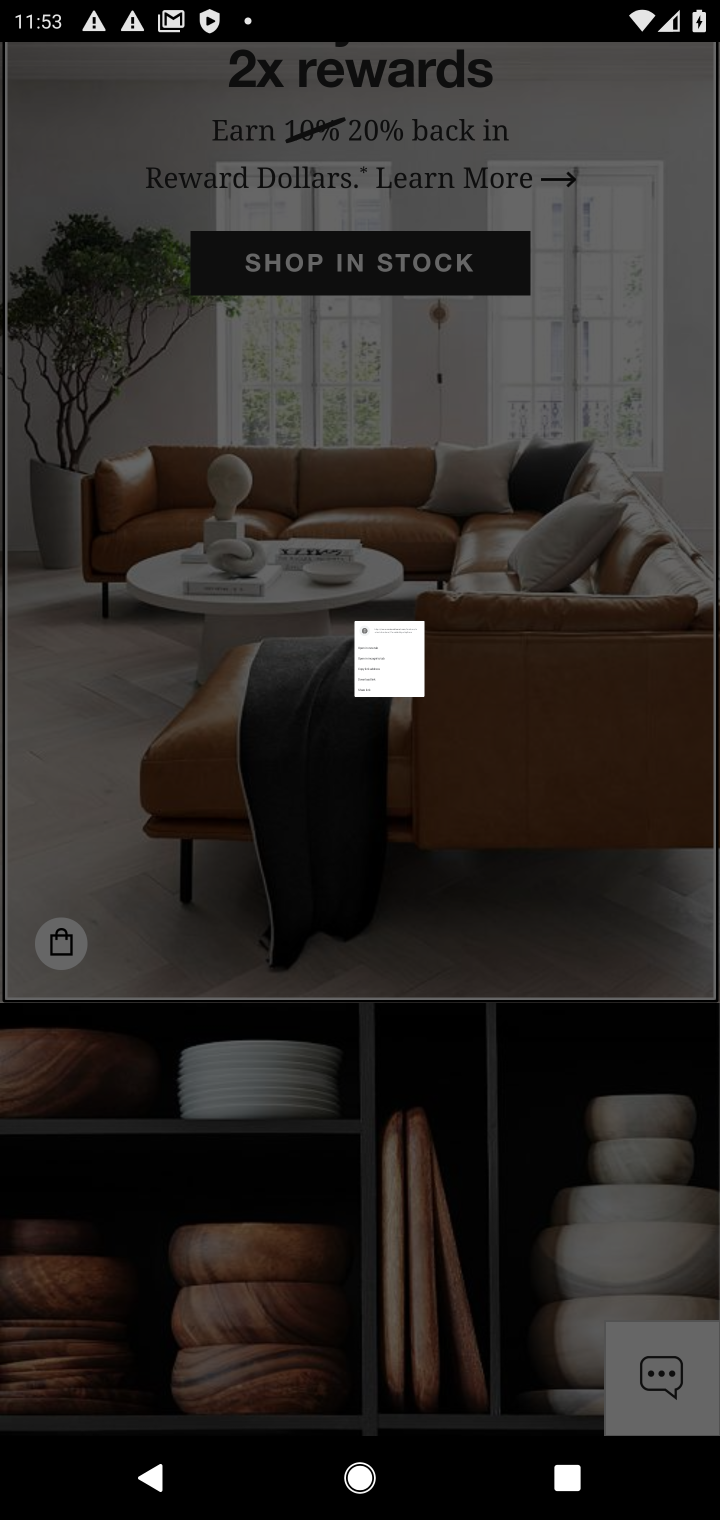
Step 28: drag from (633, 1156) to (716, 315)
Your task to perform on an android device: Search for the best coffee tables on Crate & Barrel Image 29: 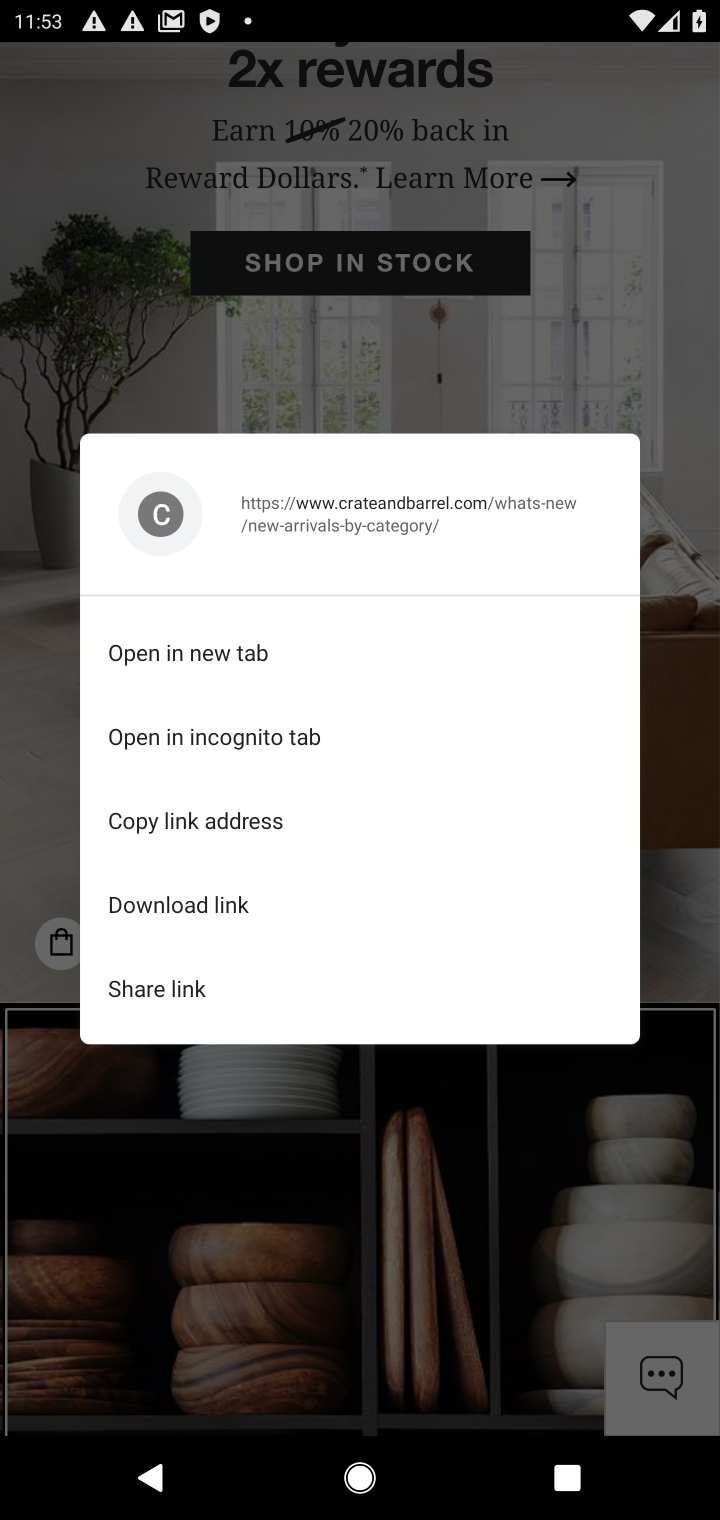
Step 29: click (559, 1160)
Your task to perform on an android device: Search for the best coffee tables on Crate & Barrel Image 30: 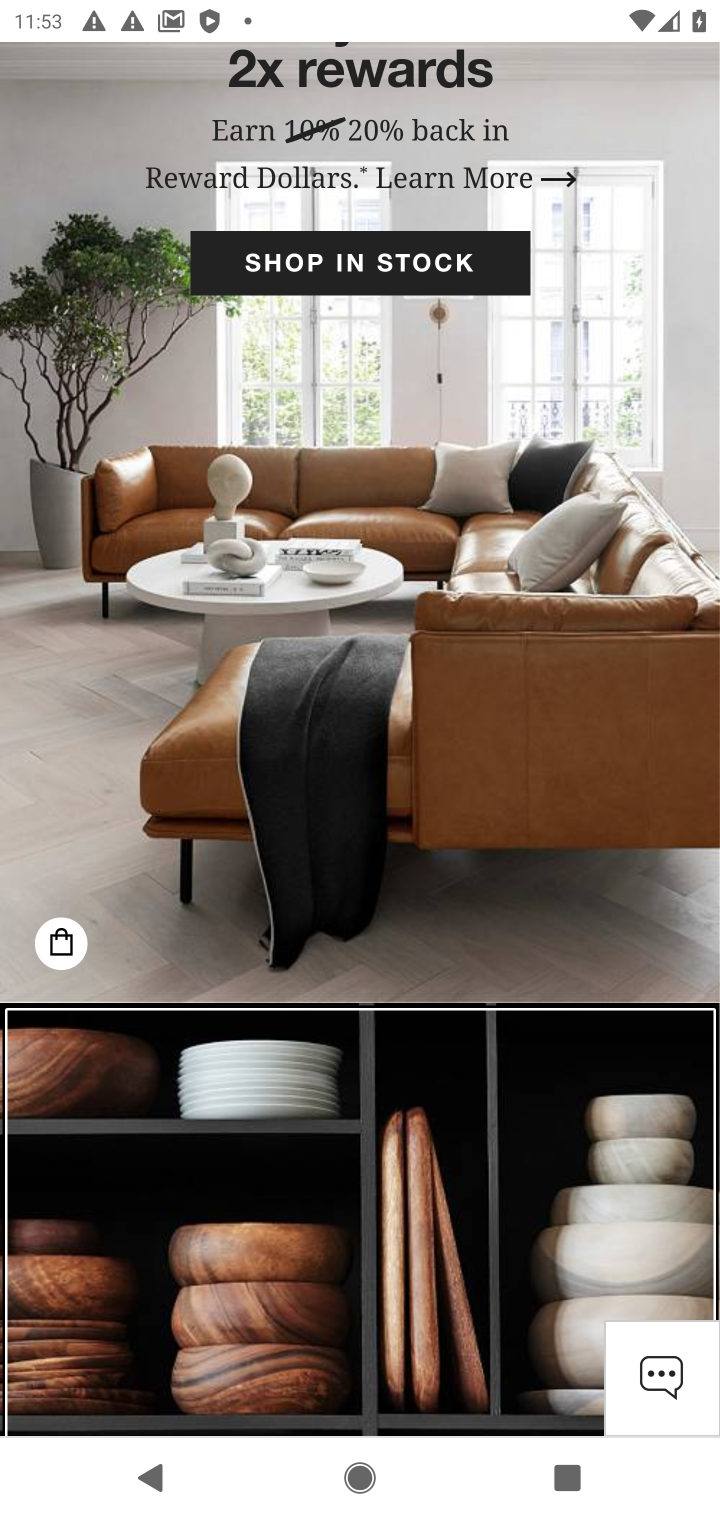
Step 30: task complete